Your task to perform on an android device: turn notification dots on Image 0: 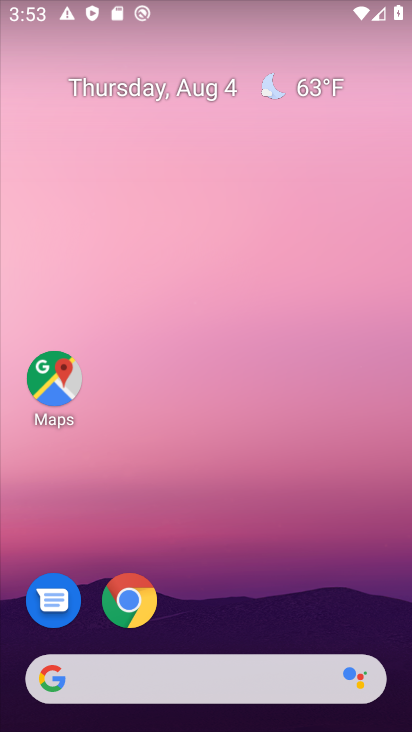
Step 0: drag from (327, 546) to (255, 71)
Your task to perform on an android device: turn notification dots on Image 1: 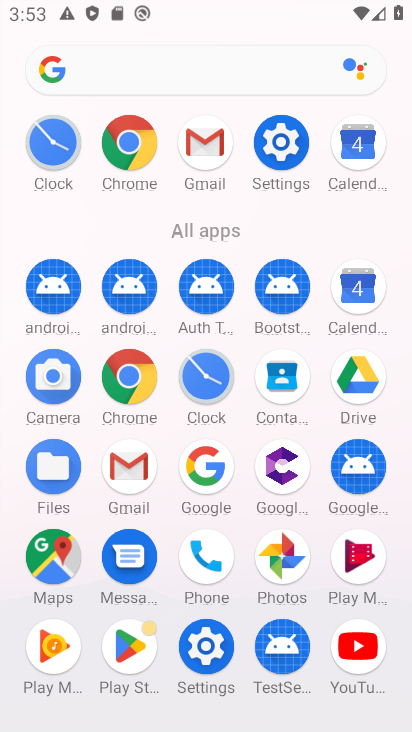
Step 1: click (280, 140)
Your task to perform on an android device: turn notification dots on Image 2: 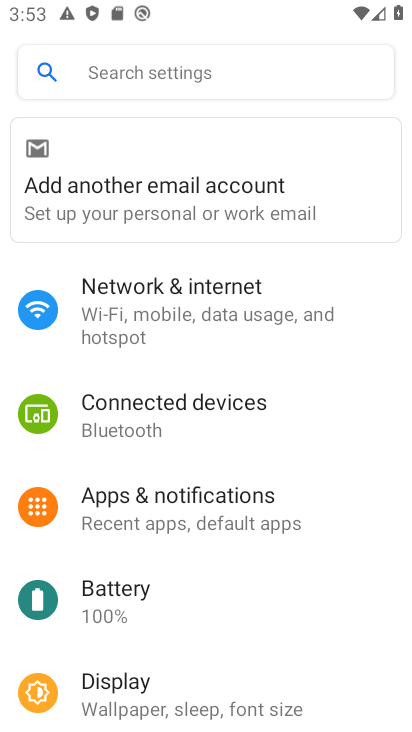
Step 2: drag from (234, 596) to (237, 159)
Your task to perform on an android device: turn notification dots on Image 3: 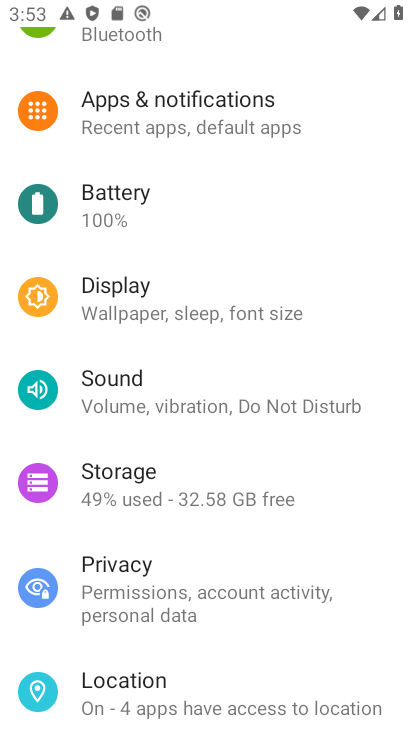
Step 3: click (239, 626)
Your task to perform on an android device: turn notification dots on Image 4: 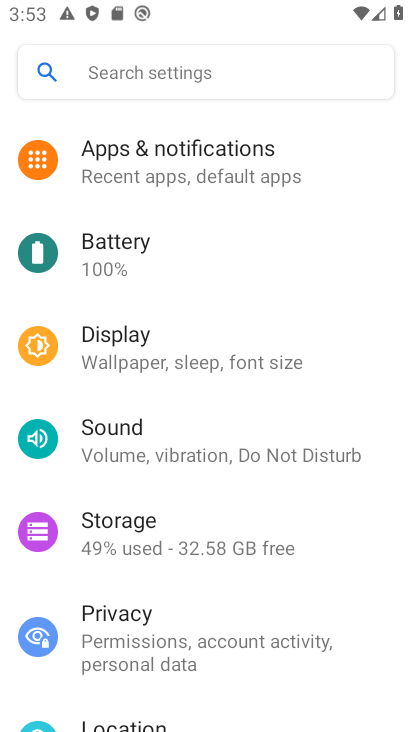
Step 4: click (167, 177)
Your task to perform on an android device: turn notification dots on Image 5: 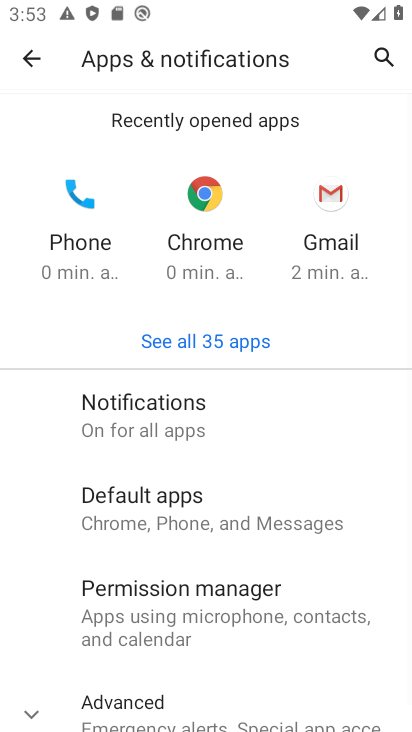
Step 5: click (141, 415)
Your task to perform on an android device: turn notification dots on Image 6: 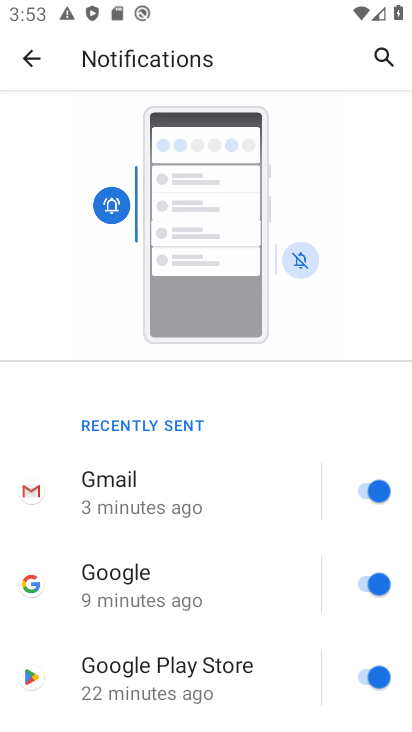
Step 6: drag from (251, 493) to (287, 23)
Your task to perform on an android device: turn notification dots on Image 7: 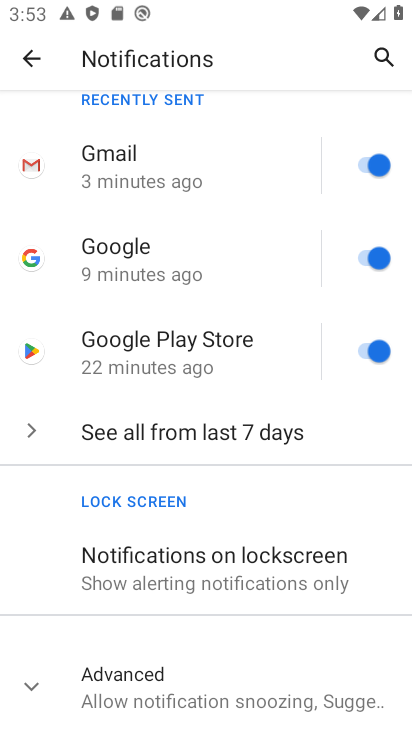
Step 7: drag from (265, 628) to (291, 116)
Your task to perform on an android device: turn notification dots on Image 8: 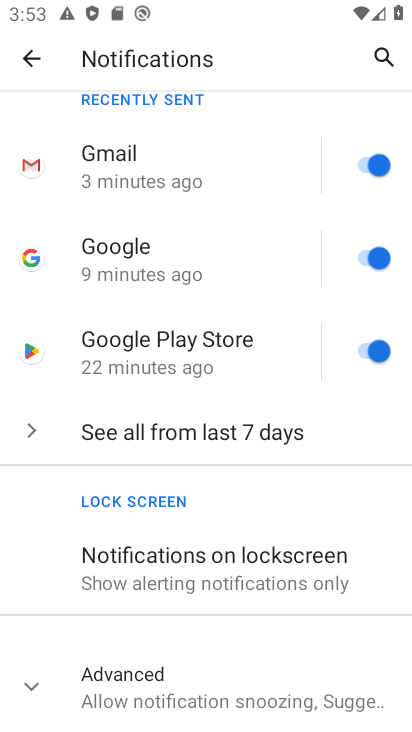
Step 8: click (215, 705)
Your task to perform on an android device: turn notification dots on Image 9: 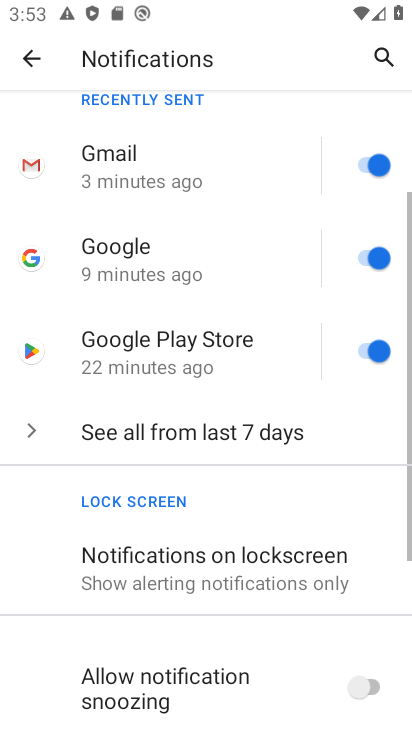
Step 9: task complete